Your task to perform on an android device: turn on notifications settings in the gmail app Image 0: 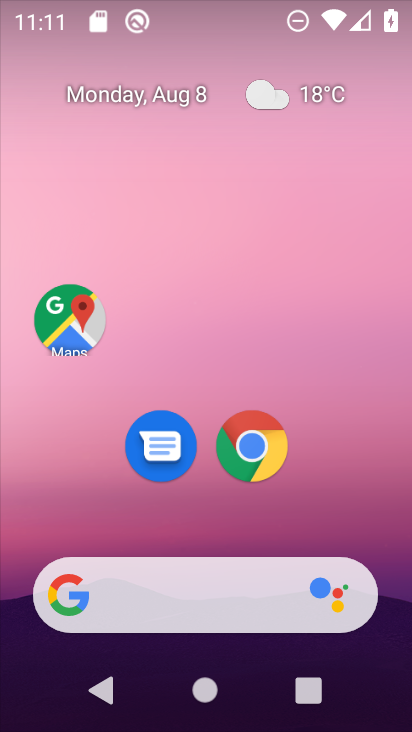
Step 0: drag from (393, 630) to (356, 122)
Your task to perform on an android device: turn on notifications settings in the gmail app Image 1: 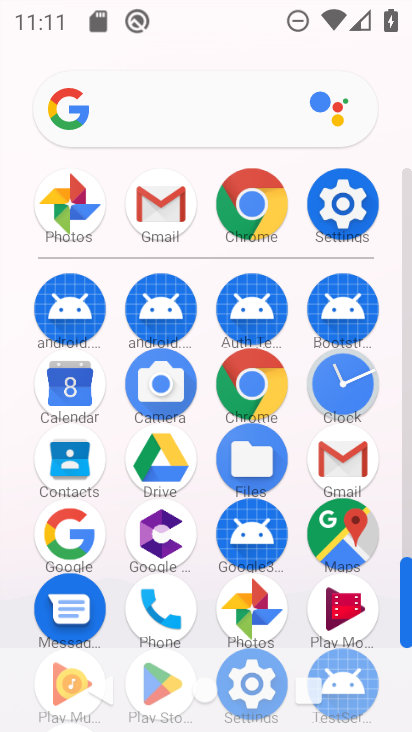
Step 1: click (408, 540)
Your task to perform on an android device: turn on notifications settings in the gmail app Image 2: 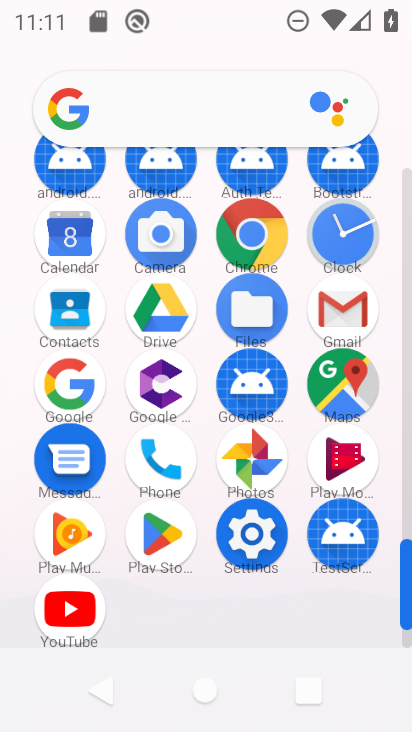
Step 2: click (341, 309)
Your task to perform on an android device: turn on notifications settings in the gmail app Image 3: 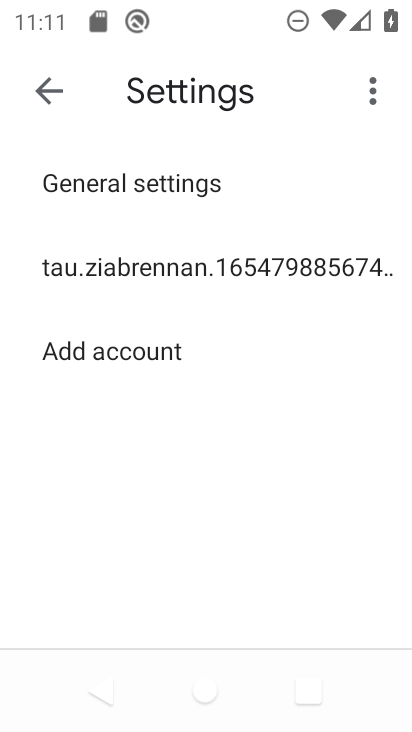
Step 3: click (172, 269)
Your task to perform on an android device: turn on notifications settings in the gmail app Image 4: 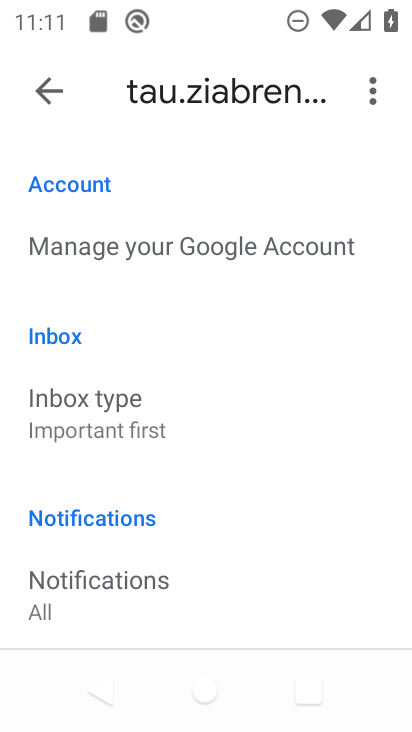
Step 4: drag from (232, 602) to (241, 256)
Your task to perform on an android device: turn on notifications settings in the gmail app Image 5: 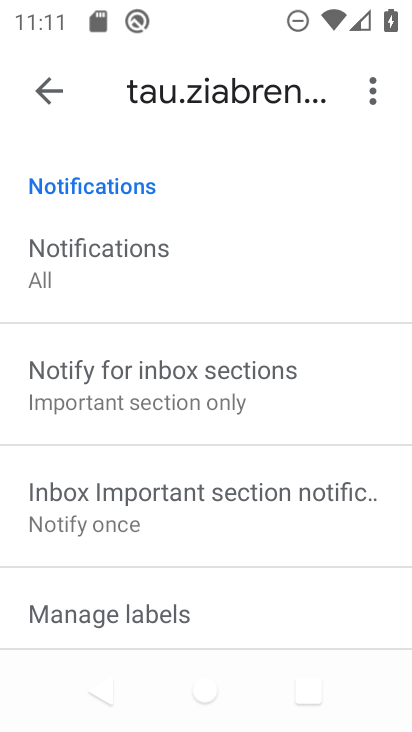
Step 5: drag from (245, 622) to (265, 290)
Your task to perform on an android device: turn on notifications settings in the gmail app Image 6: 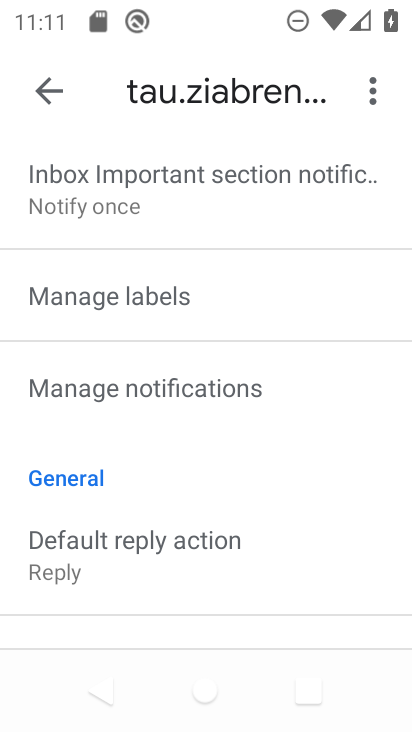
Step 6: click (154, 392)
Your task to perform on an android device: turn on notifications settings in the gmail app Image 7: 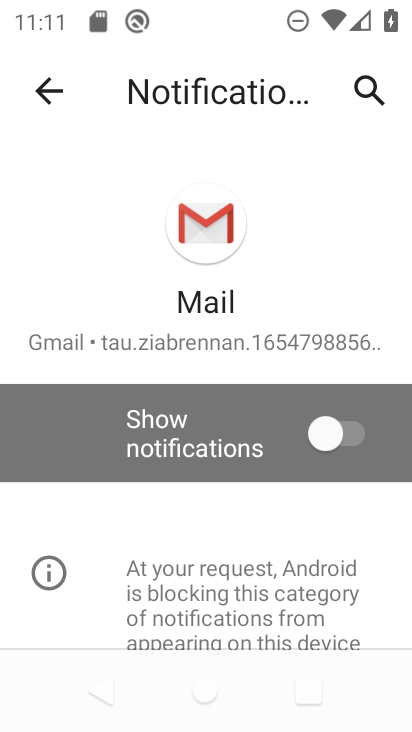
Step 7: click (349, 421)
Your task to perform on an android device: turn on notifications settings in the gmail app Image 8: 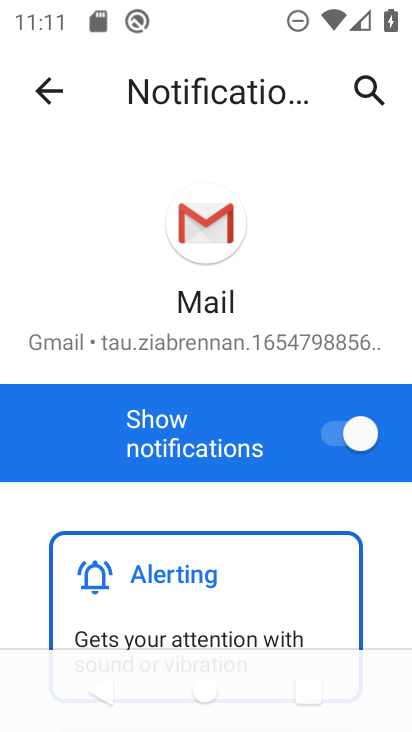
Step 8: task complete